Your task to perform on an android device: Show me productivity apps on the Play Store Image 0: 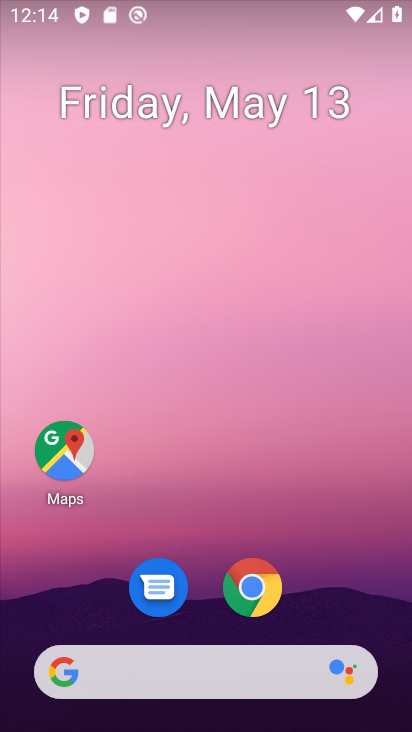
Step 0: drag from (187, 656) to (268, 99)
Your task to perform on an android device: Show me productivity apps on the Play Store Image 1: 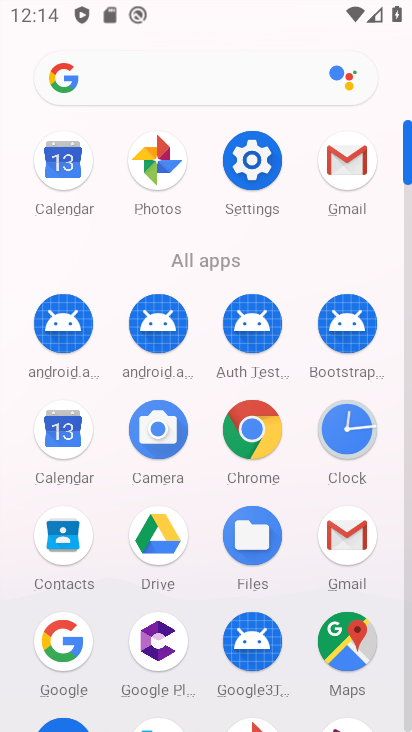
Step 1: drag from (211, 612) to (266, 212)
Your task to perform on an android device: Show me productivity apps on the Play Store Image 2: 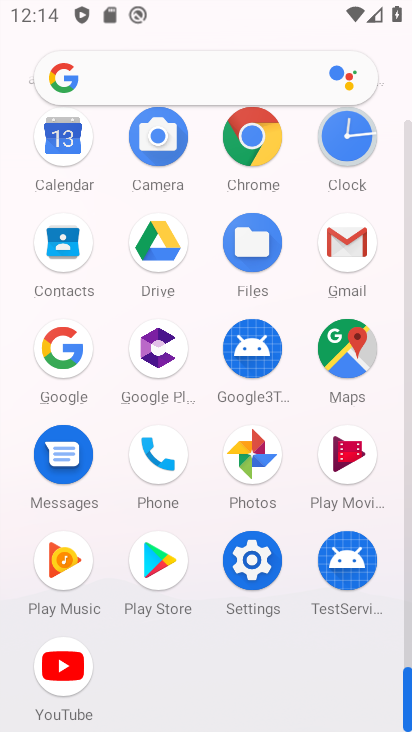
Step 2: click (156, 568)
Your task to perform on an android device: Show me productivity apps on the Play Store Image 3: 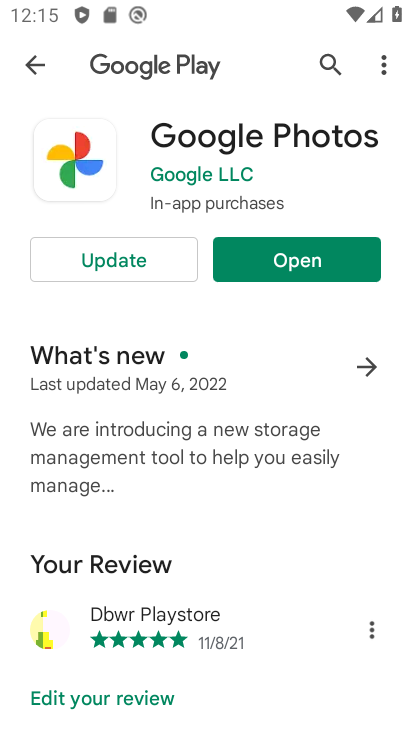
Step 3: click (30, 68)
Your task to perform on an android device: Show me productivity apps on the Play Store Image 4: 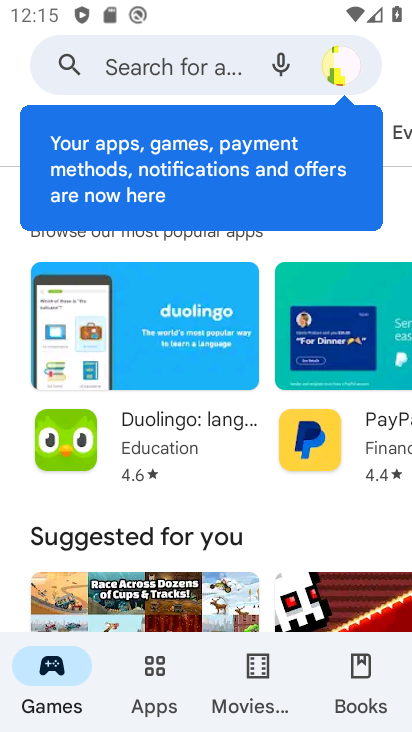
Step 4: click (150, 682)
Your task to perform on an android device: Show me productivity apps on the Play Store Image 5: 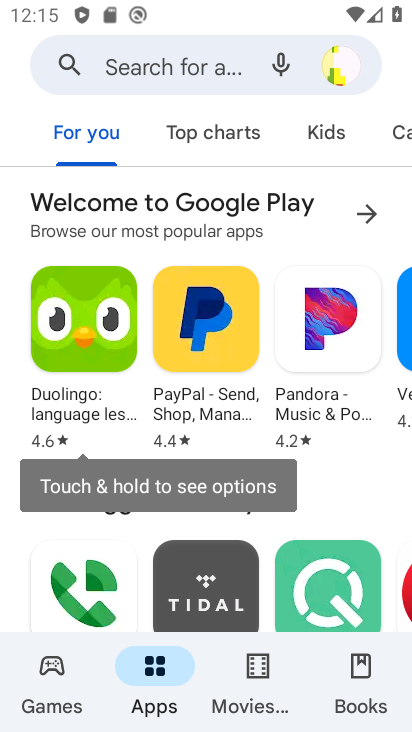
Step 5: drag from (182, 561) to (274, 210)
Your task to perform on an android device: Show me productivity apps on the Play Store Image 6: 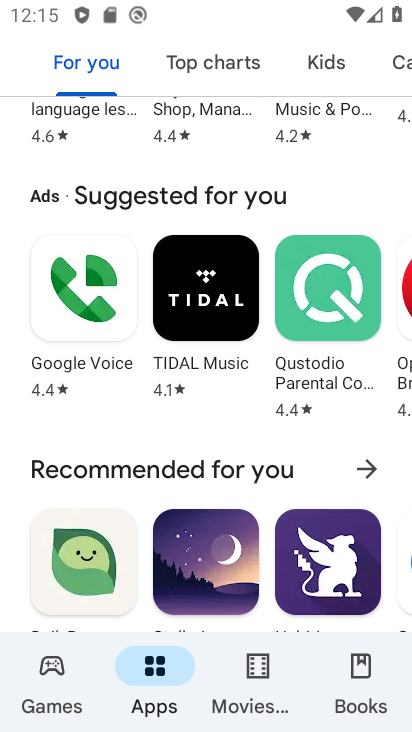
Step 6: drag from (205, 540) to (326, 50)
Your task to perform on an android device: Show me productivity apps on the Play Store Image 7: 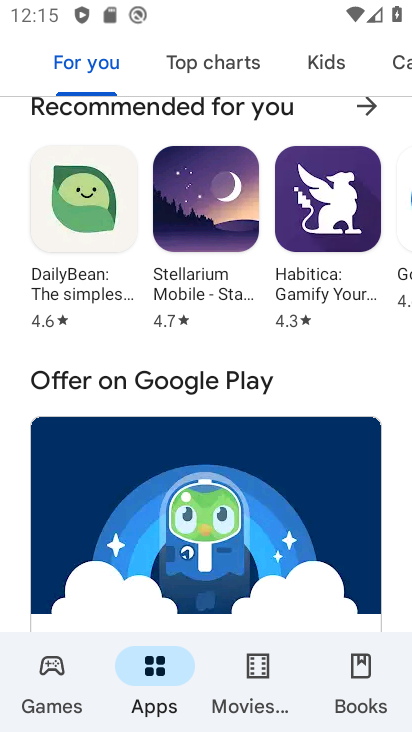
Step 7: drag from (187, 508) to (319, 12)
Your task to perform on an android device: Show me productivity apps on the Play Store Image 8: 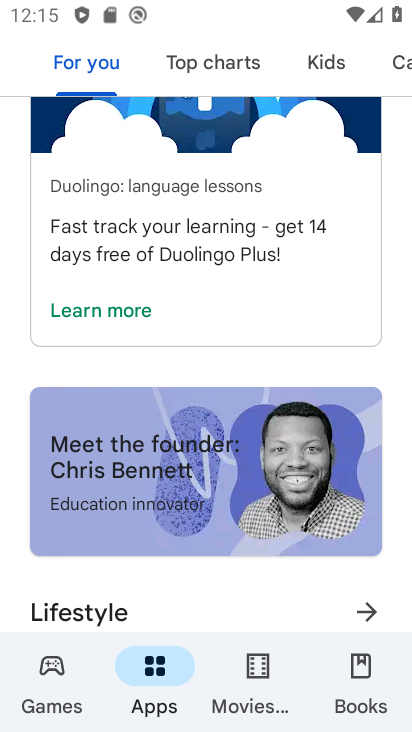
Step 8: drag from (188, 497) to (331, 72)
Your task to perform on an android device: Show me productivity apps on the Play Store Image 9: 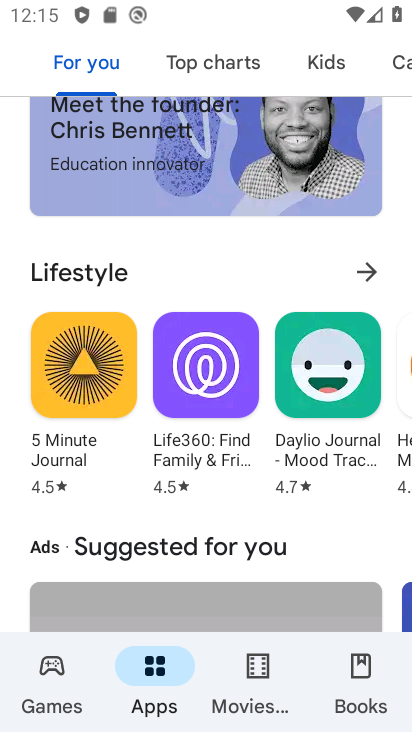
Step 9: drag from (158, 496) to (330, 56)
Your task to perform on an android device: Show me productivity apps on the Play Store Image 10: 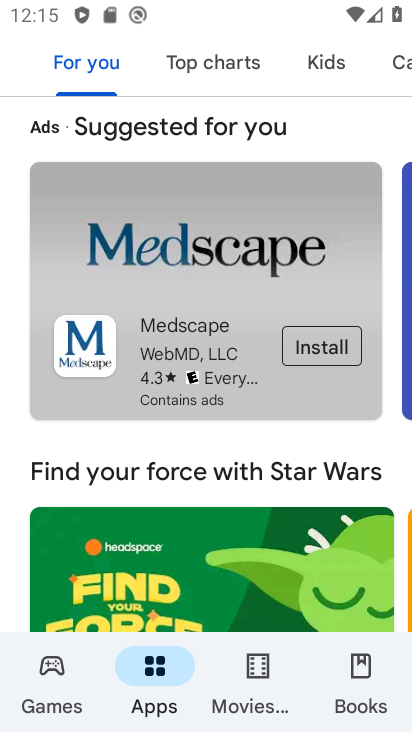
Step 10: drag from (190, 486) to (309, 147)
Your task to perform on an android device: Show me productivity apps on the Play Store Image 11: 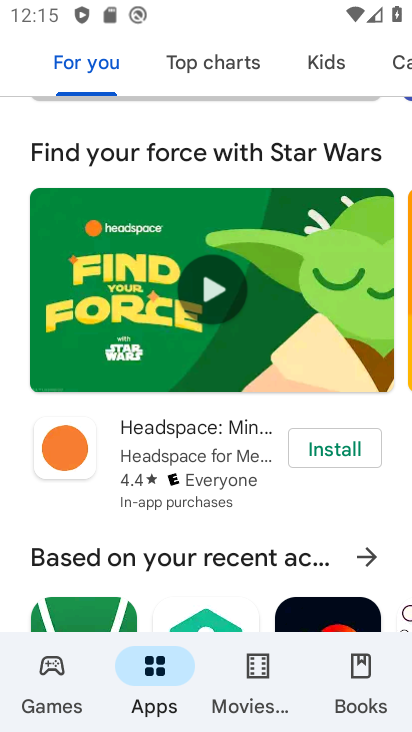
Step 11: drag from (148, 548) to (281, 103)
Your task to perform on an android device: Show me productivity apps on the Play Store Image 12: 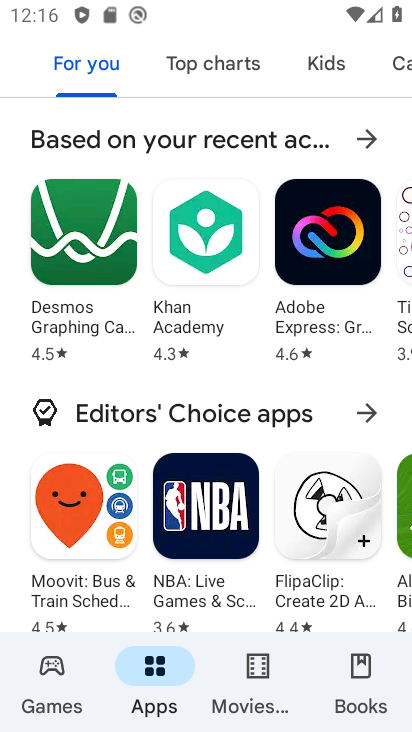
Step 12: drag from (163, 561) to (264, 44)
Your task to perform on an android device: Show me productivity apps on the Play Store Image 13: 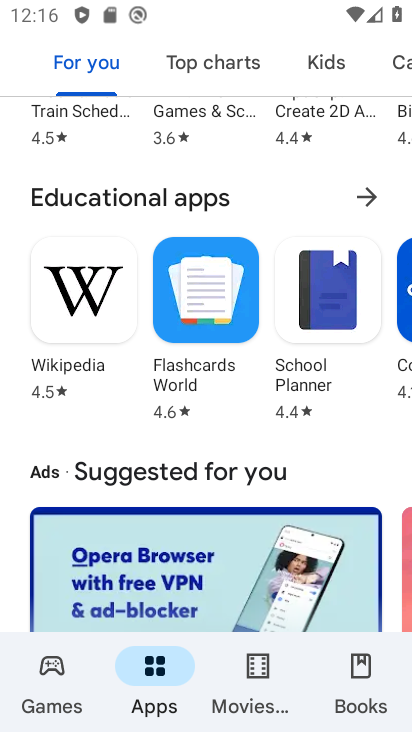
Step 13: drag from (181, 498) to (249, 18)
Your task to perform on an android device: Show me productivity apps on the Play Store Image 14: 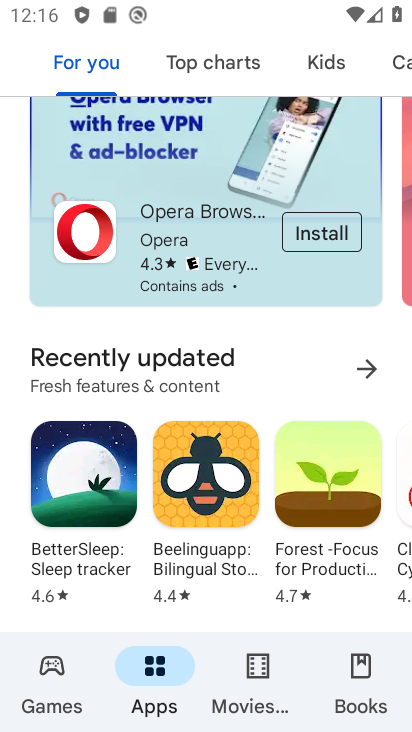
Step 14: drag from (175, 507) to (285, 3)
Your task to perform on an android device: Show me productivity apps on the Play Store Image 15: 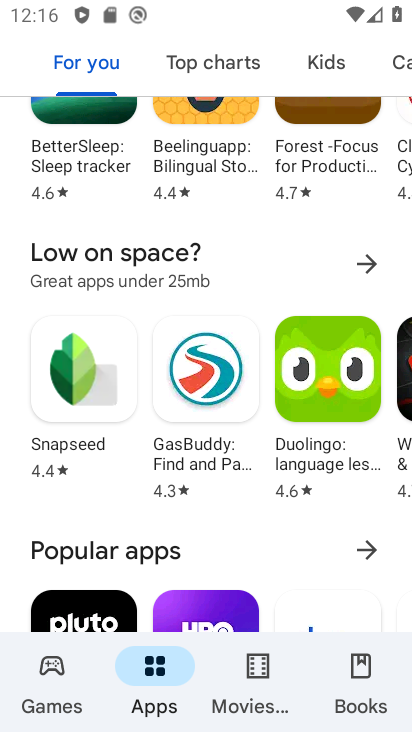
Step 15: drag from (155, 614) to (262, 25)
Your task to perform on an android device: Show me productivity apps on the Play Store Image 16: 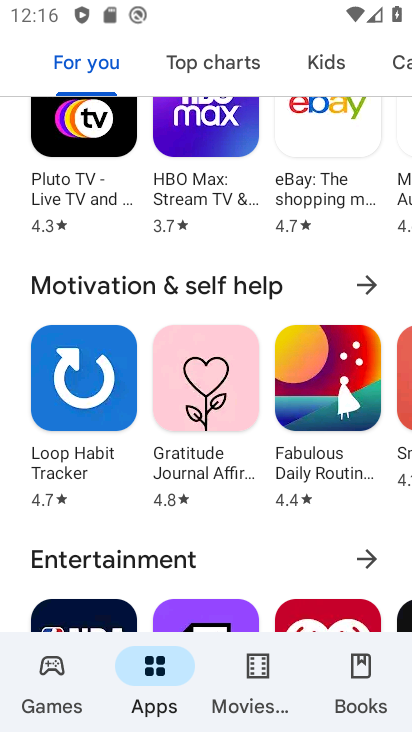
Step 16: drag from (194, 529) to (262, 18)
Your task to perform on an android device: Show me productivity apps on the Play Store Image 17: 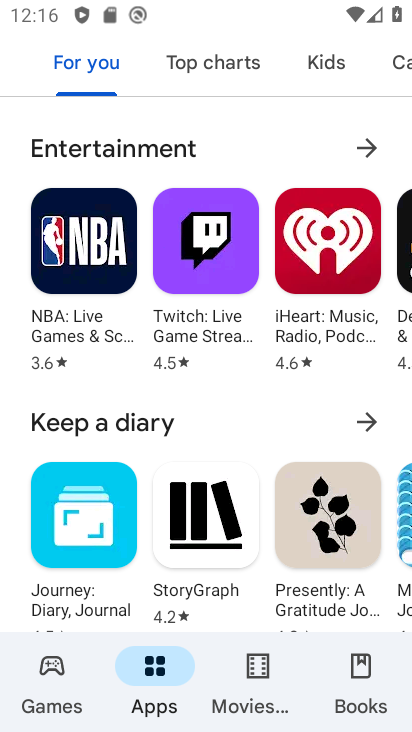
Step 17: drag from (199, 572) to (274, 5)
Your task to perform on an android device: Show me productivity apps on the Play Store Image 18: 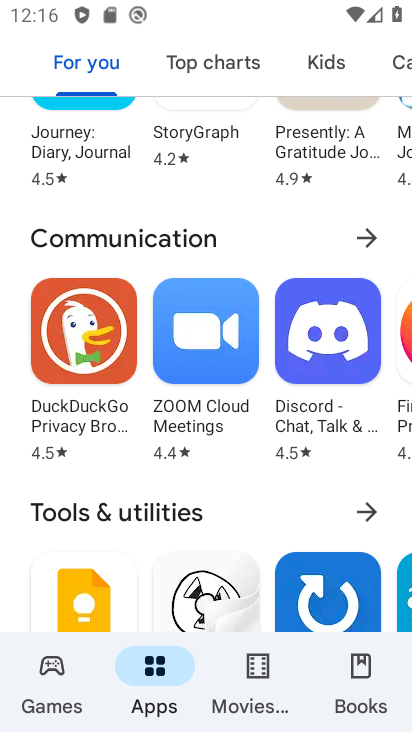
Step 18: drag from (220, 528) to (276, 41)
Your task to perform on an android device: Show me productivity apps on the Play Store Image 19: 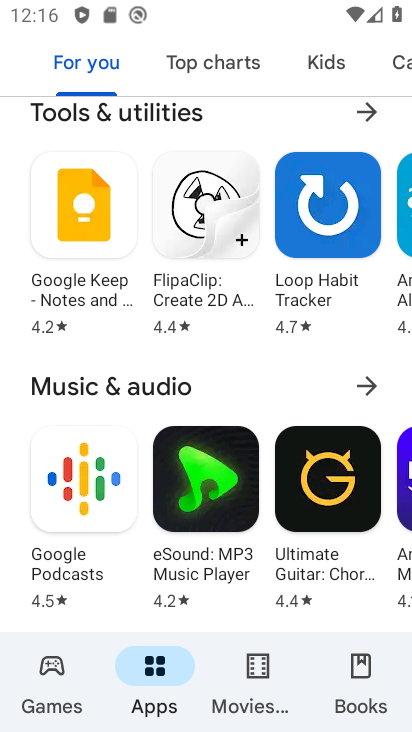
Step 19: drag from (199, 561) to (263, 77)
Your task to perform on an android device: Show me productivity apps on the Play Store Image 20: 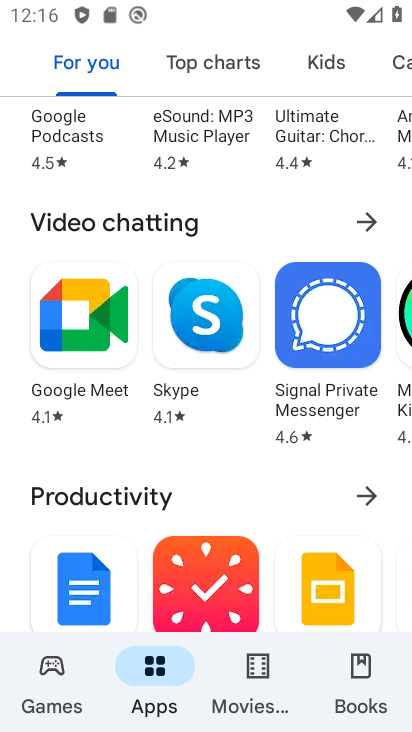
Step 20: click (377, 498)
Your task to perform on an android device: Show me productivity apps on the Play Store Image 21: 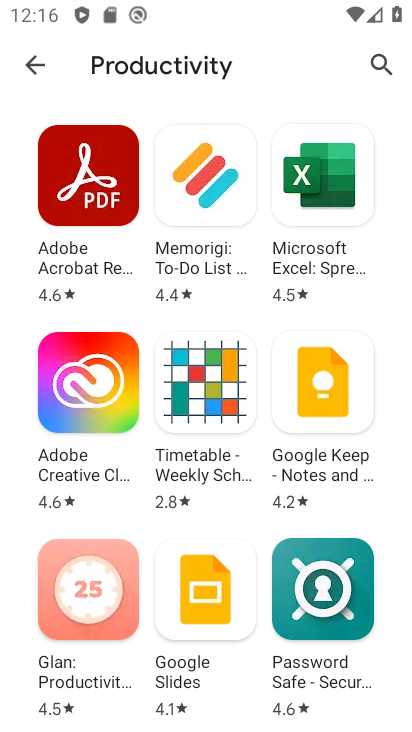
Step 21: task complete